Your task to perform on an android device: open wifi settings Image 0: 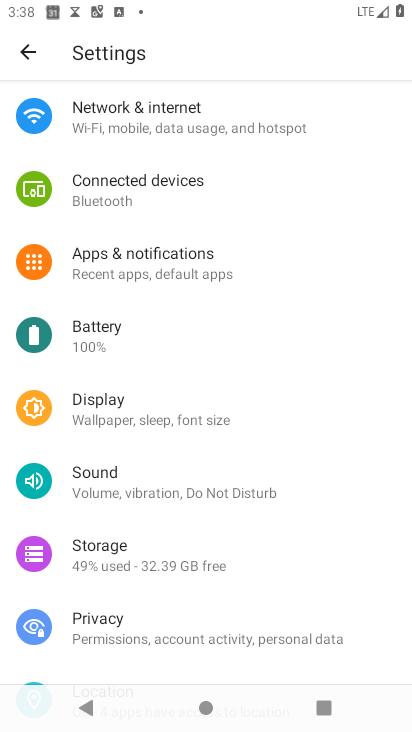
Step 0: click (305, 112)
Your task to perform on an android device: open wifi settings Image 1: 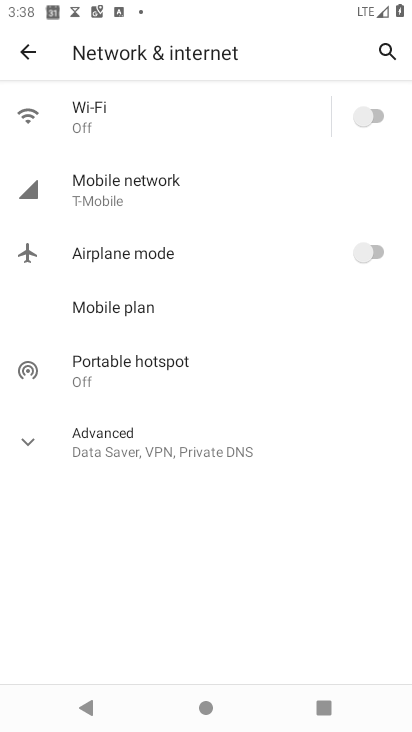
Step 1: click (177, 114)
Your task to perform on an android device: open wifi settings Image 2: 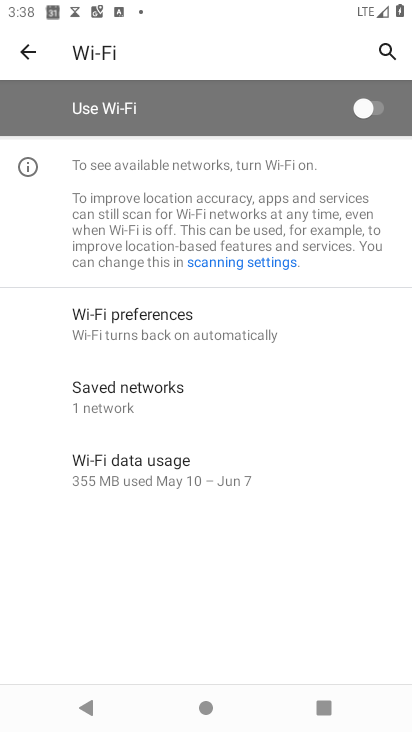
Step 2: task complete